Your task to perform on an android device: make emails show in primary in the gmail app Image 0: 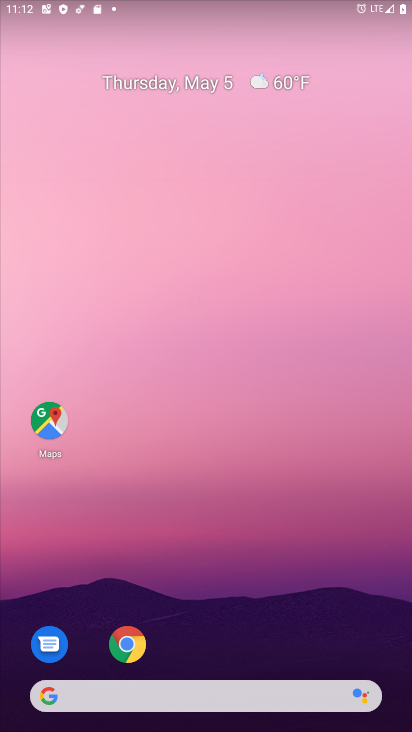
Step 0: drag from (234, 603) to (209, 250)
Your task to perform on an android device: make emails show in primary in the gmail app Image 1: 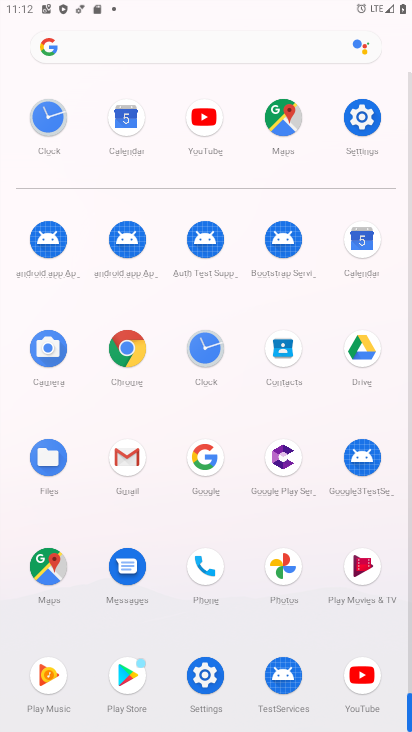
Step 1: click (124, 467)
Your task to perform on an android device: make emails show in primary in the gmail app Image 2: 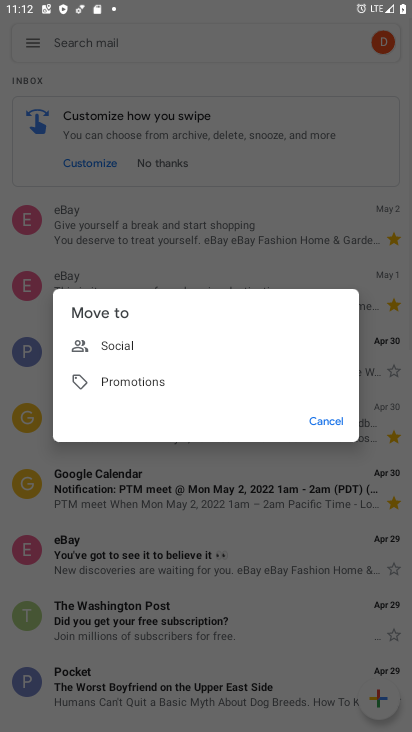
Step 2: press back button
Your task to perform on an android device: make emails show in primary in the gmail app Image 3: 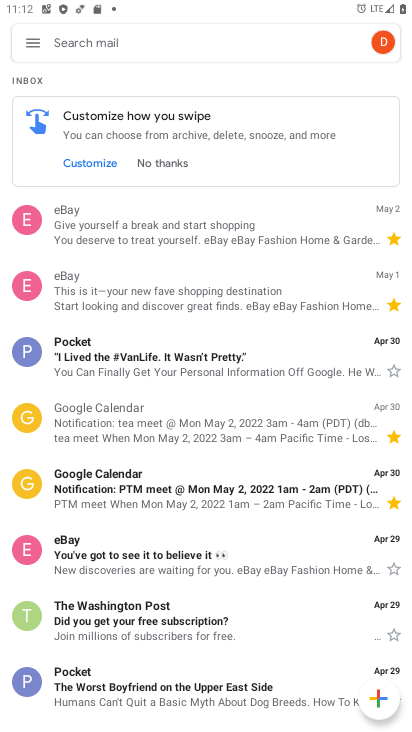
Step 3: click (34, 48)
Your task to perform on an android device: make emails show in primary in the gmail app Image 4: 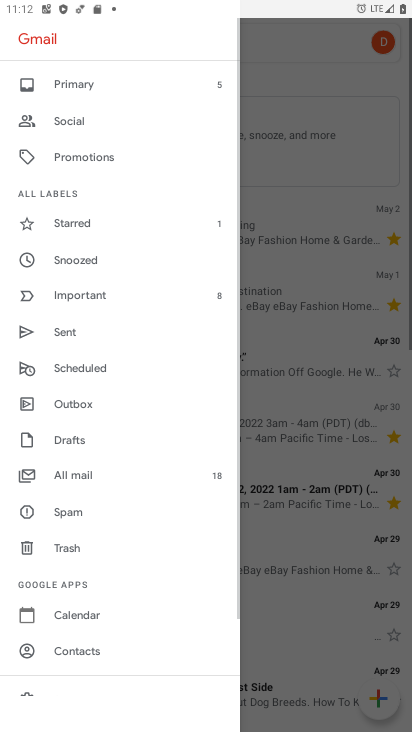
Step 4: click (70, 84)
Your task to perform on an android device: make emails show in primary in the gmail app Image 5: 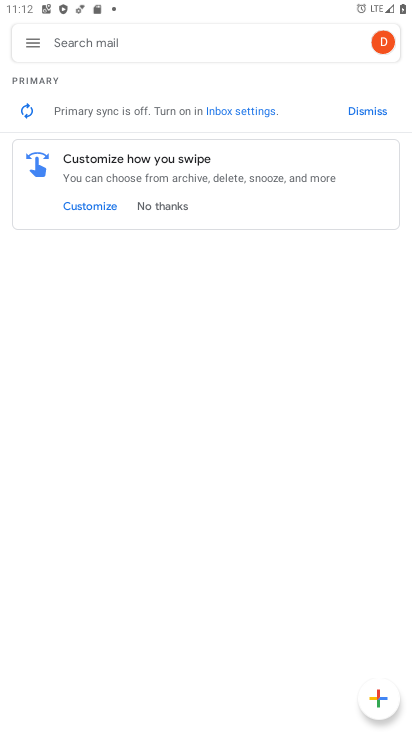
Step 5: task complete